Your task to perform on an android device: What's on the menu at Starbucks? Image 0: 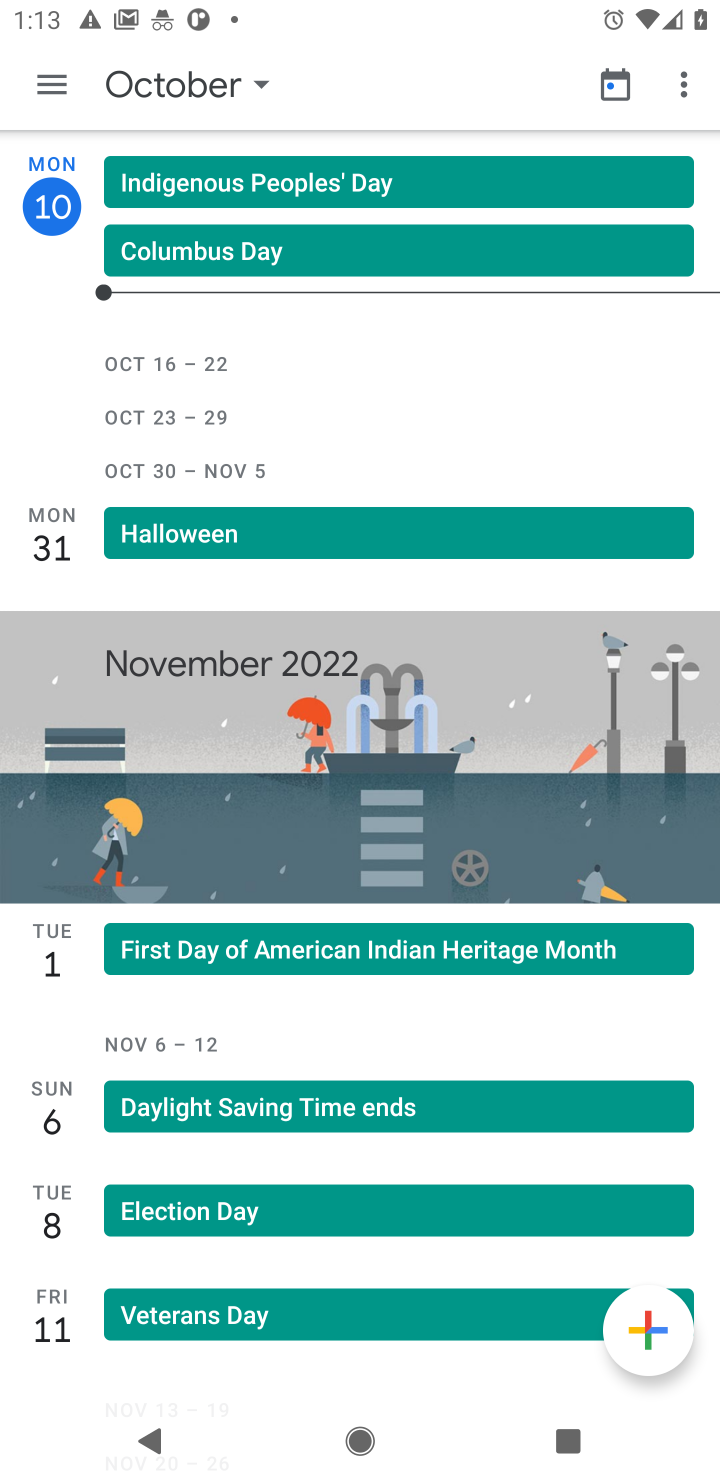
Step 0: press home button
Your task to perform on an android device: What's on the menu at Starbucks? Image 1: 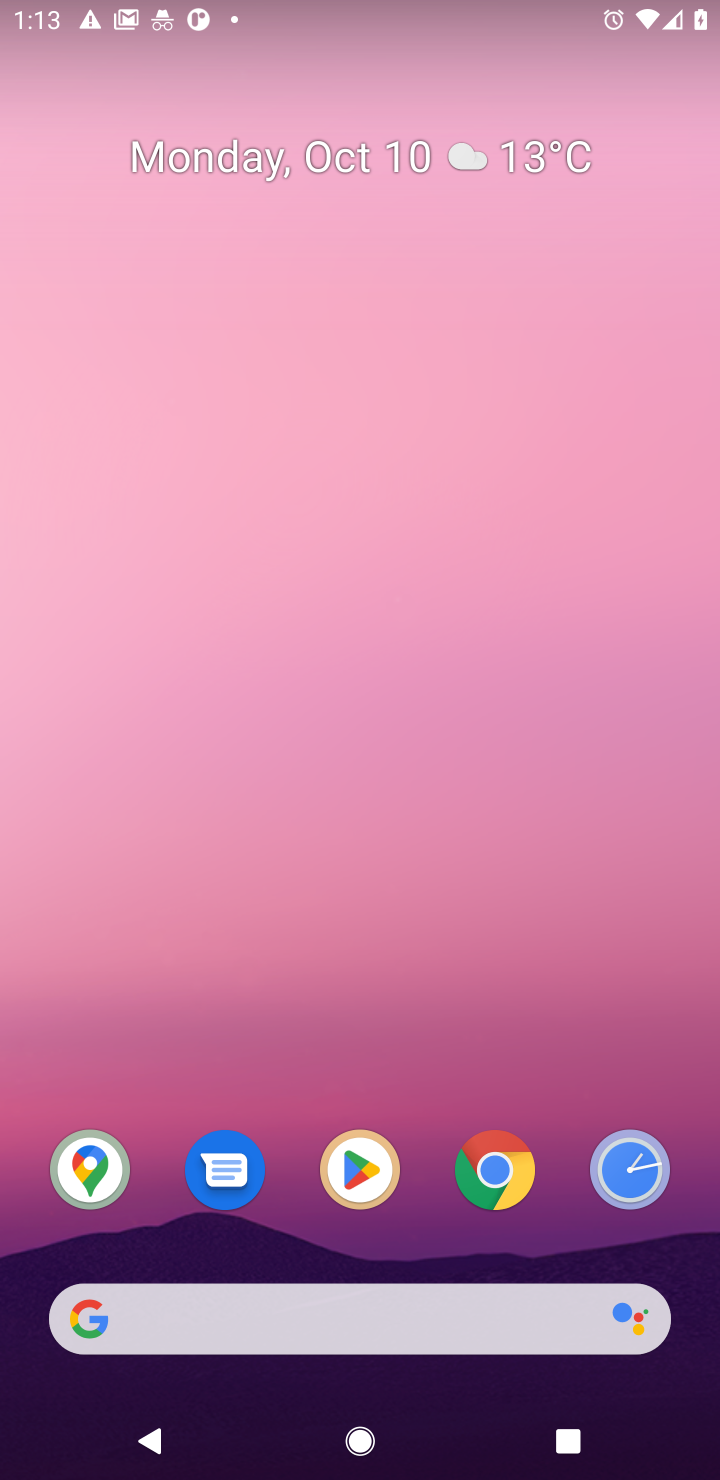
Step 1: click (492, 1177)
Your task to perform on an android device: What's on the menu at Starbucks? Image 2: 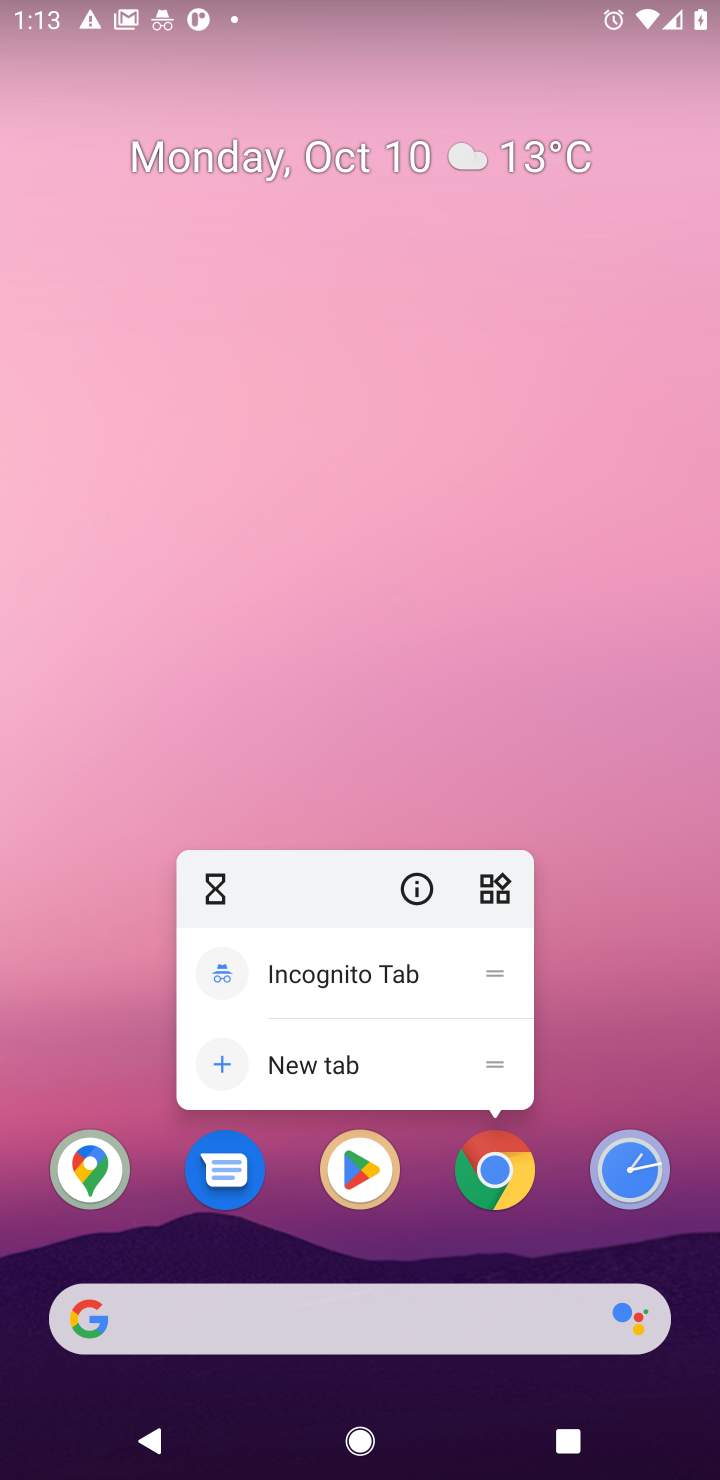
Step 2: click (492, 1177)
Your task to perform on an android device: What's on the menu at Starbucks? Image 3: 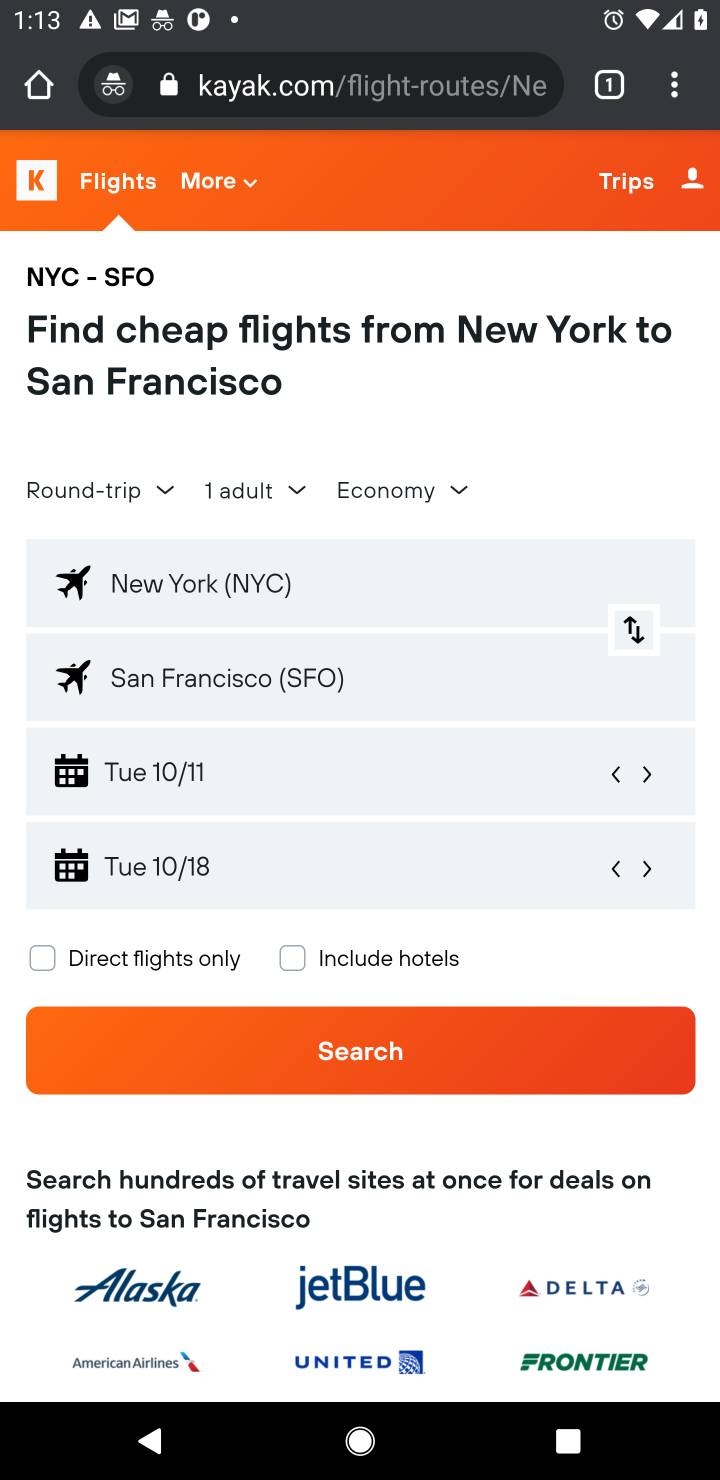
Step 3: click (304, 91)
Your task to perform on an android device: What's on the menu at Starbucks? Image 4: 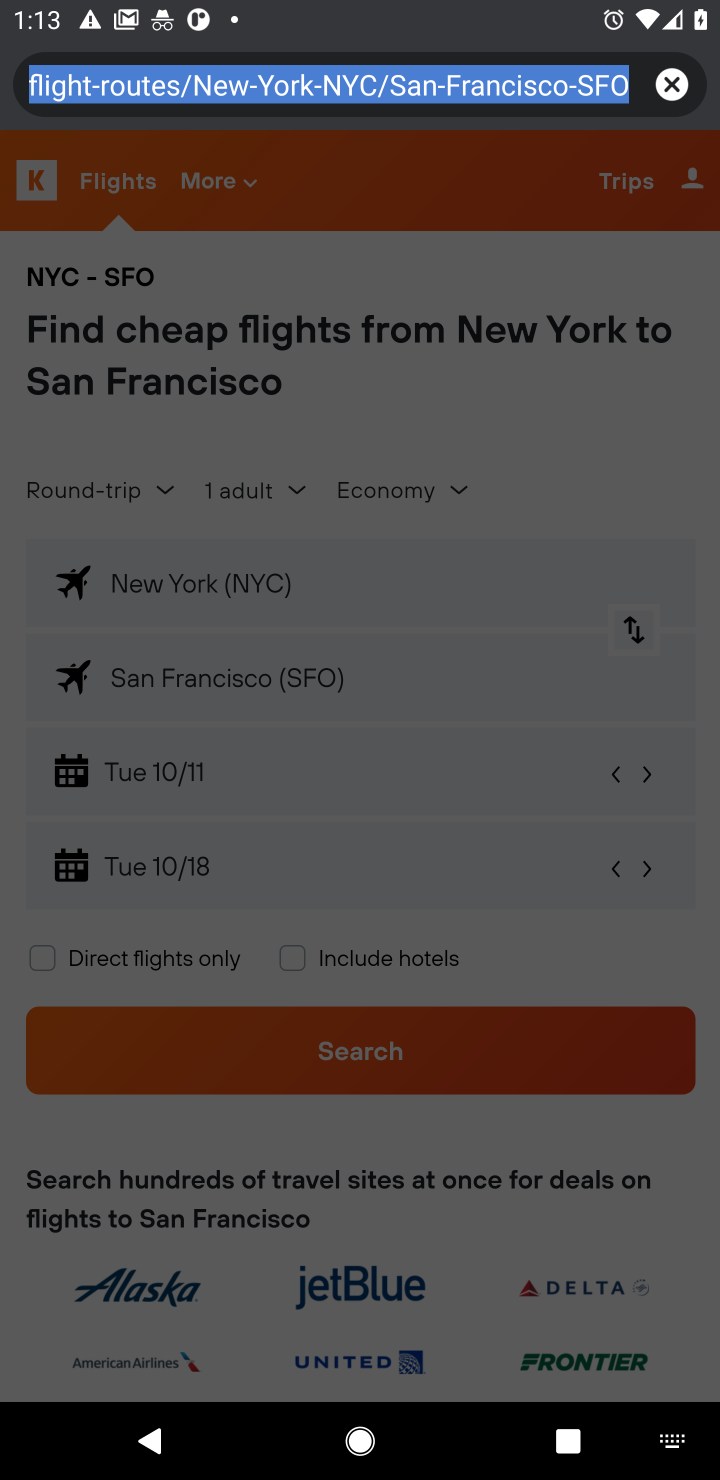
Step 4: click (668, 90)
Your task to perform on an android device: What's on the menu at Starbucks? Image 5: 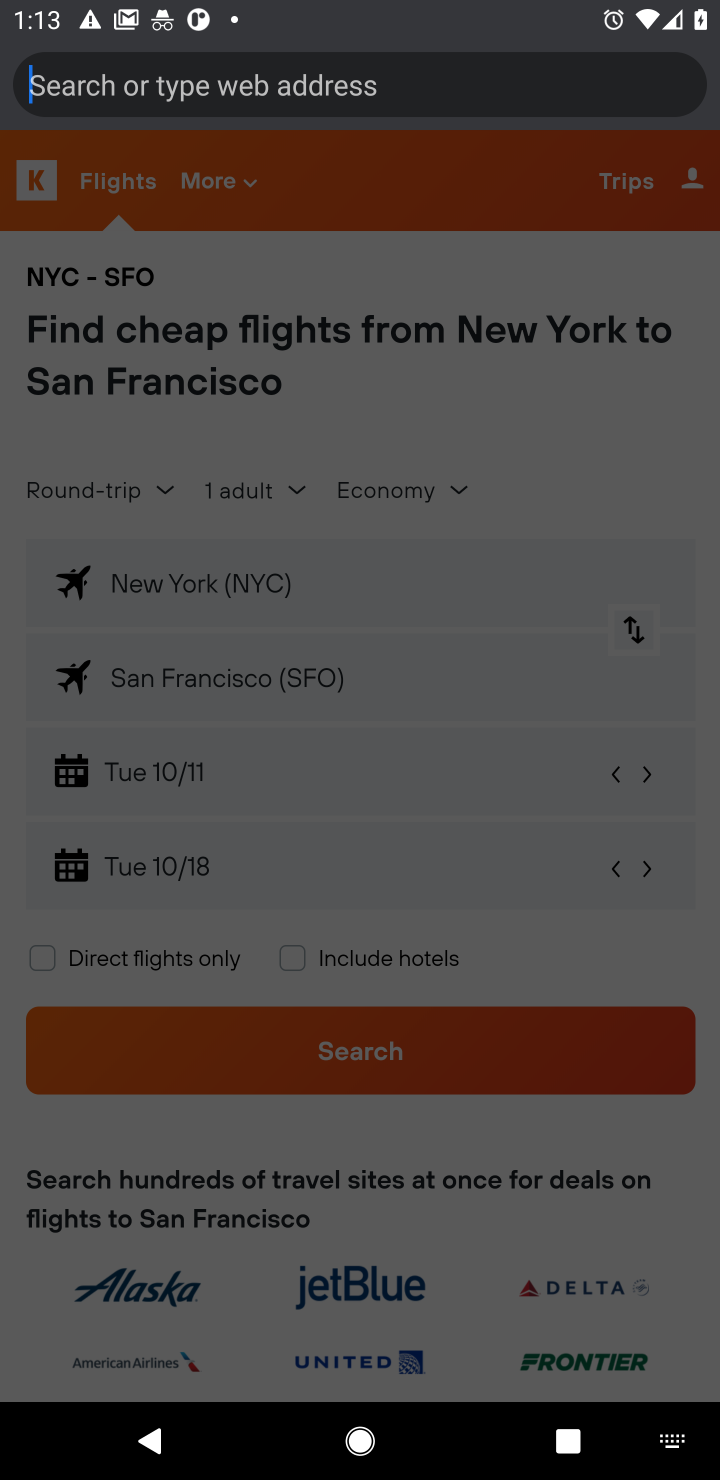
Step 5: type "whats on the menu at starbucks"
Your task to perform on an android device: What's on the menu at Starbucks? Image 6: 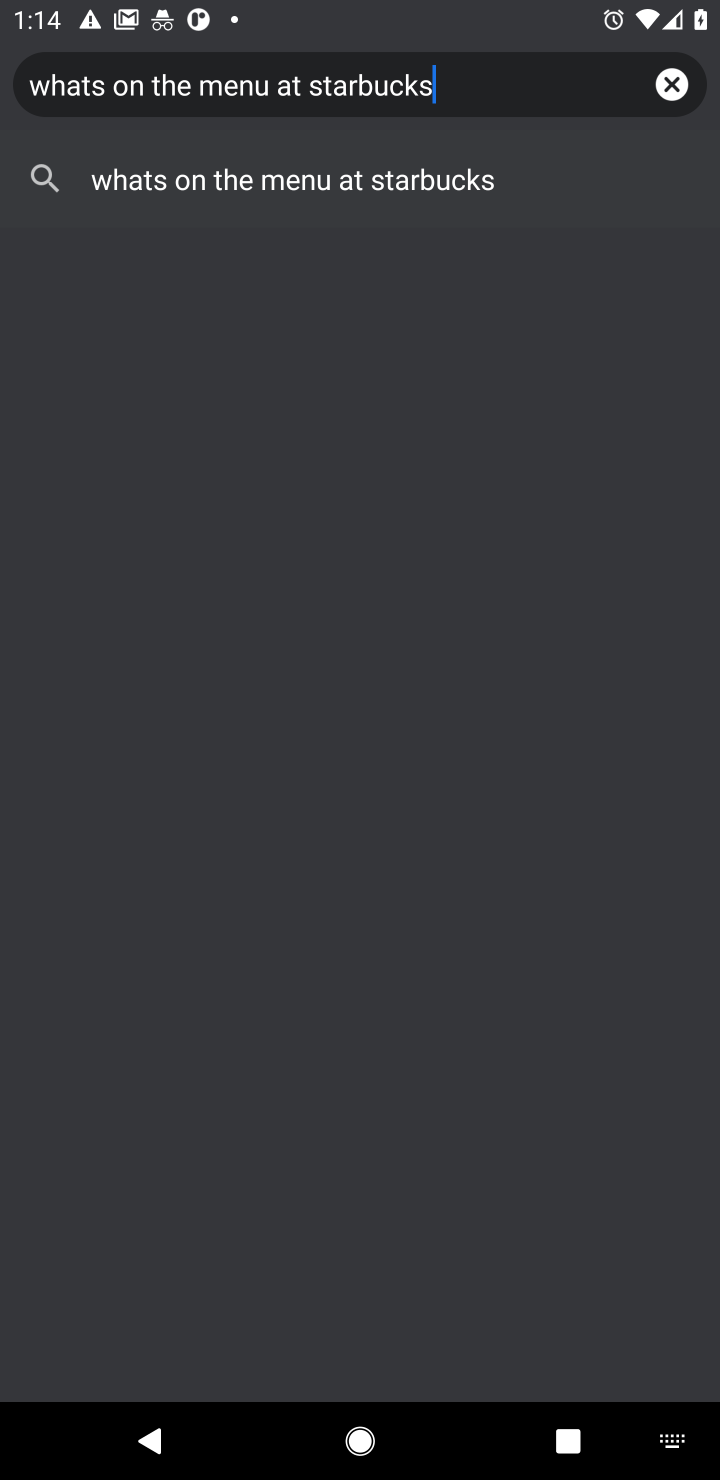
Step 6: click (628, 181)
Your task to perform on an android device: What's on the menu at Starbucks? Image 7: 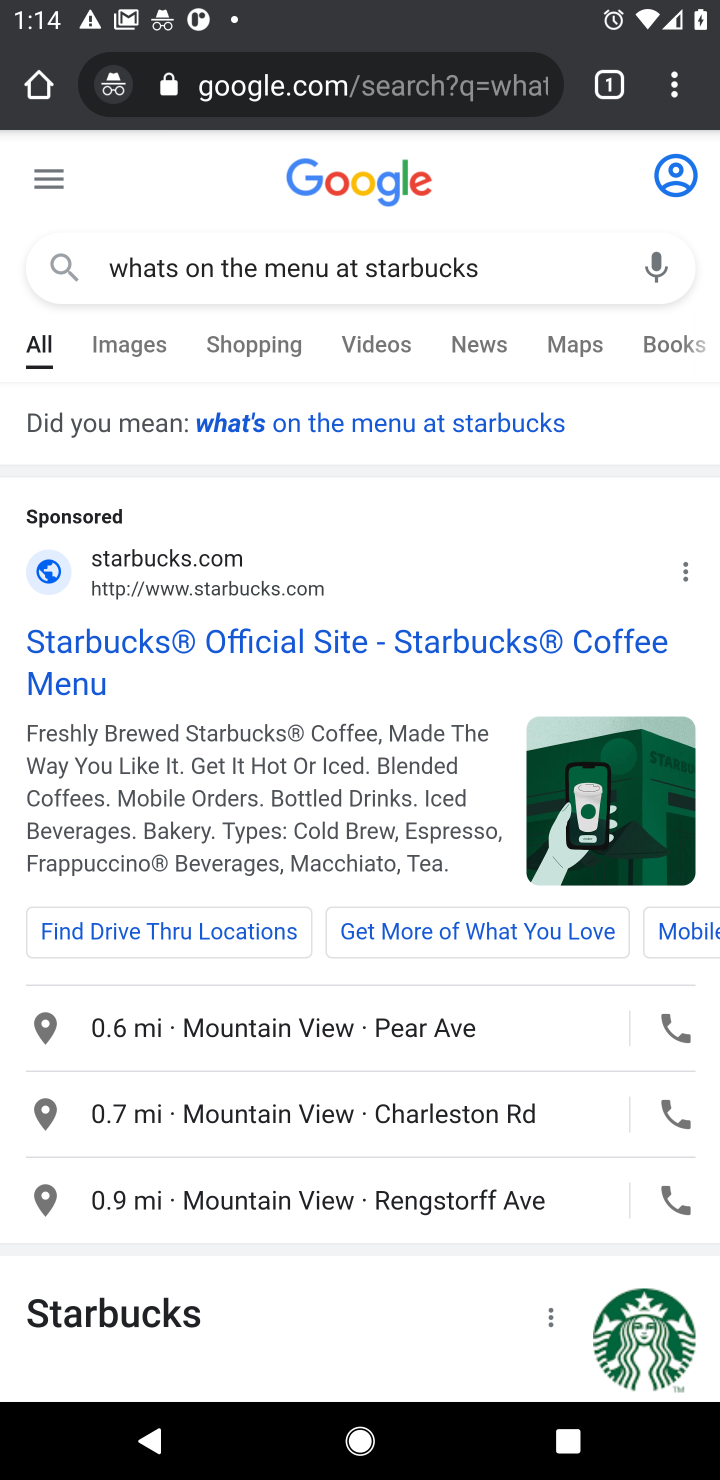
Step 7: click (338, 646)
Your task to perform on an android device: What's on the menu at Starbucks? Image 8: 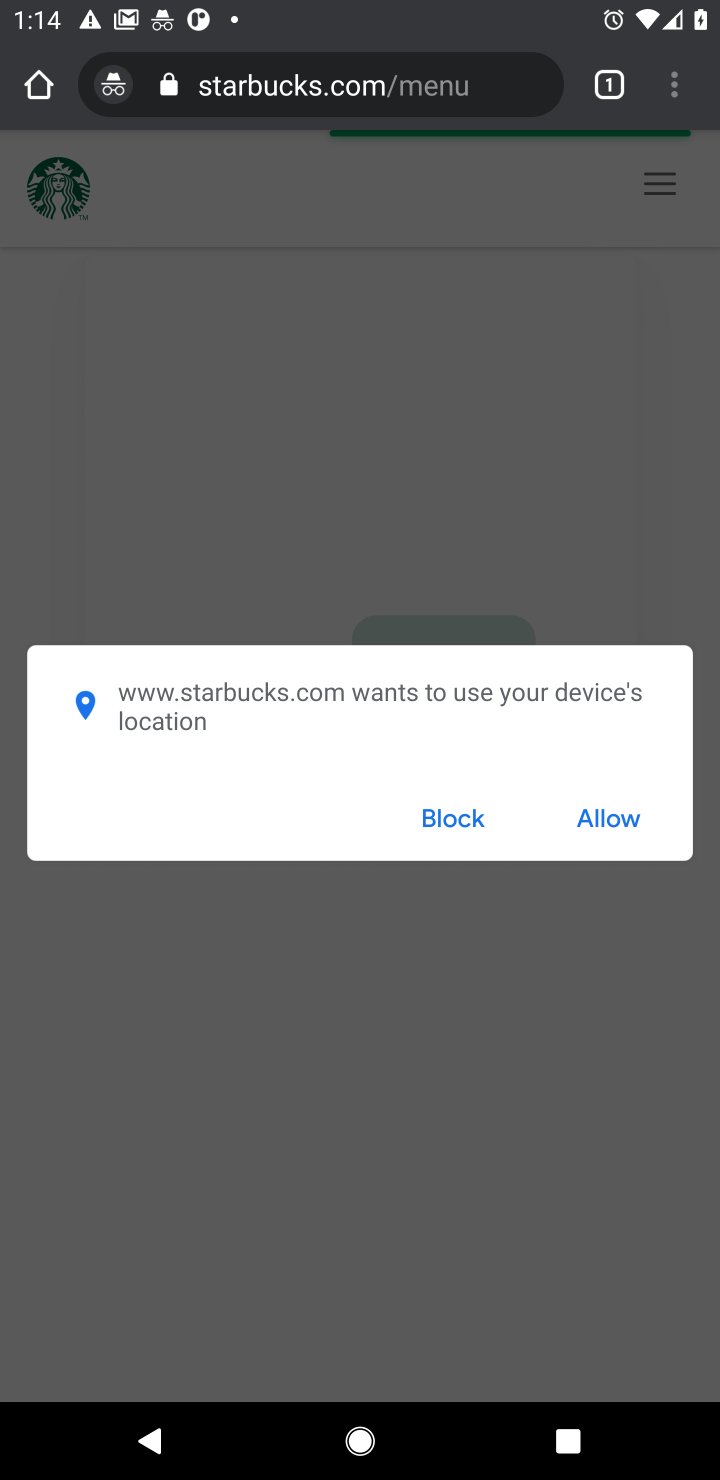
Step 8: click (609, 820)
Your task to perform on an android device: What's on the menu at Starbucks? Image 9: 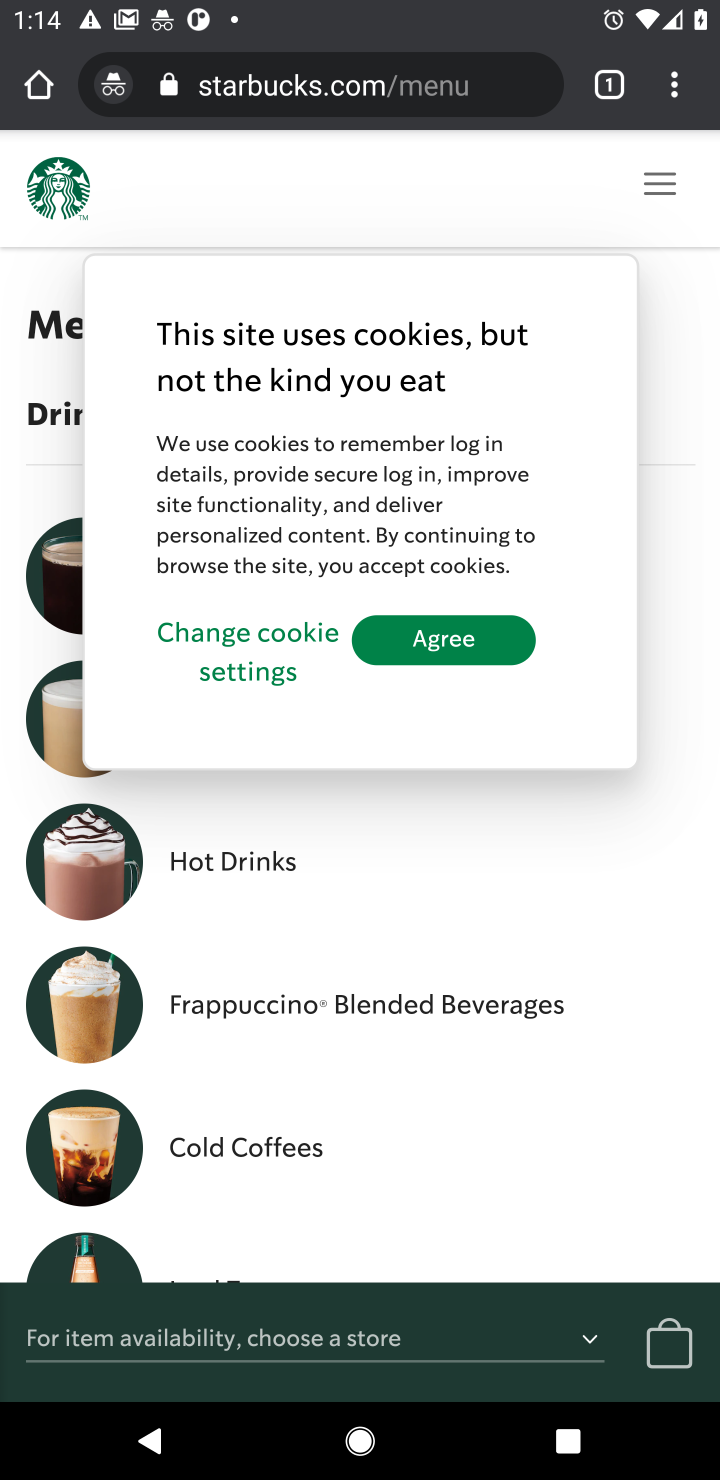
Step 9: click (466, 634)
Your task to perform on an android device: What's on the menu at Starbucks? Image 10: 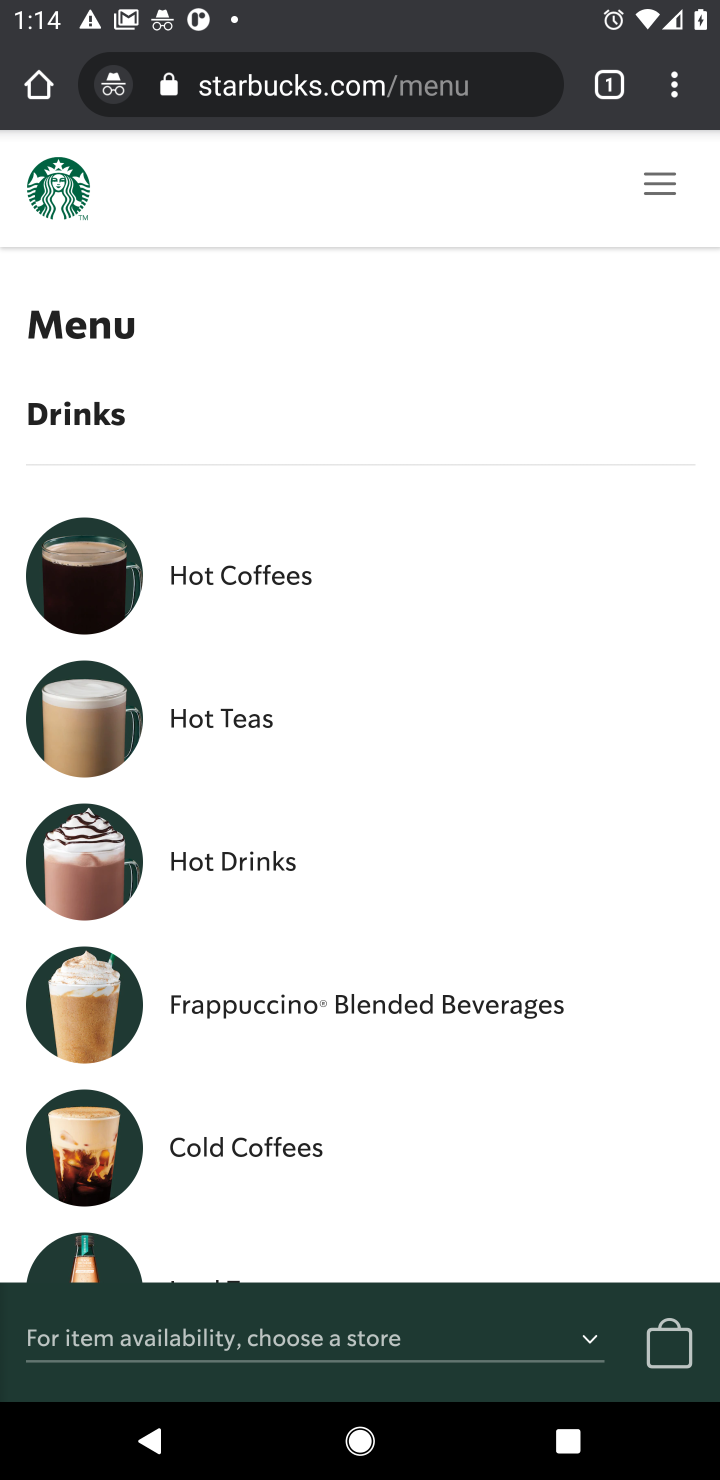
Step 10: task complete